Your task to perform on an android device: Go to Yahoo.com Image 0: 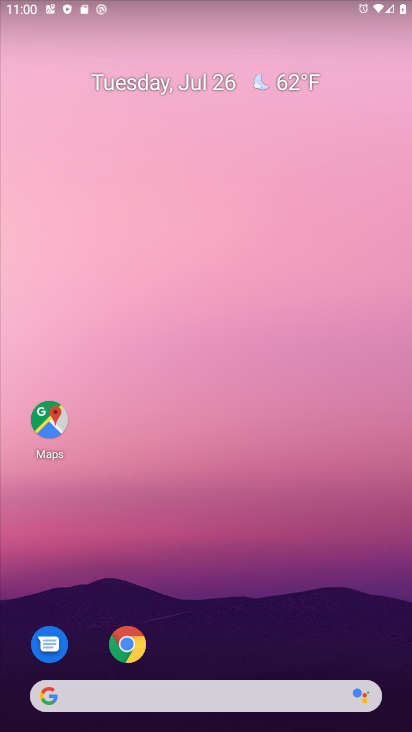
Step 0: click (127, 656)
Your task to perform on an android device: Go to Yahoo.com Image 1: 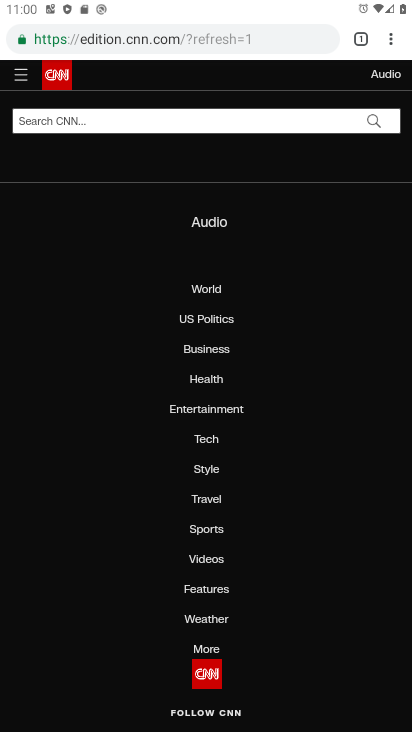
Step 1: click (187, 28)
Your task to perform on an android device: Go to Yahoo.com Image 2: 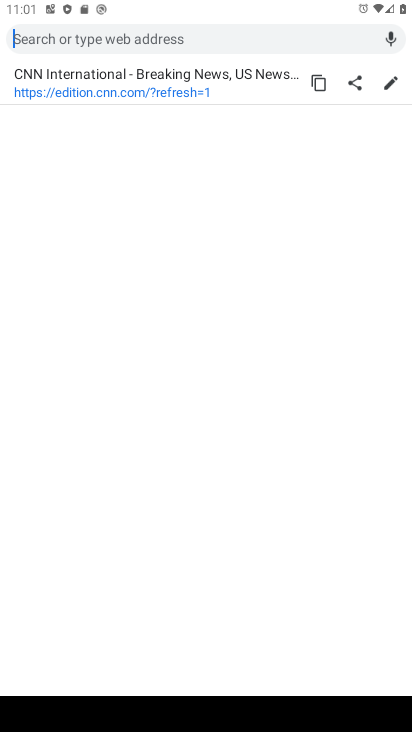
Step 2: type "yahoo.com"
Your task to perform on an android device: Go to Yahoo.com Image 3: 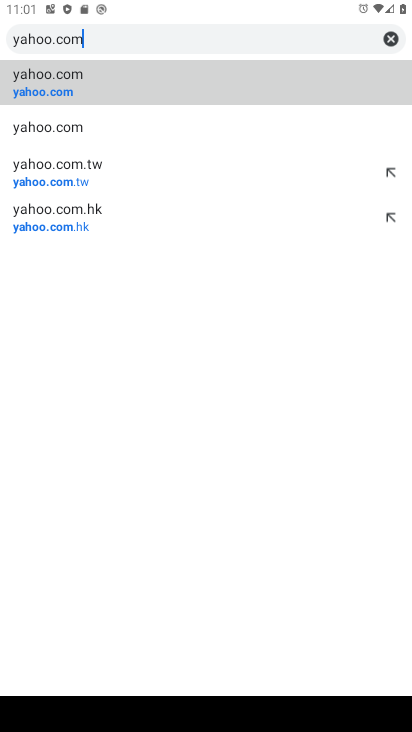
Step 3: click (136, 83)
Your task to perform on an android device: Go to Yahoo.com Image 4: 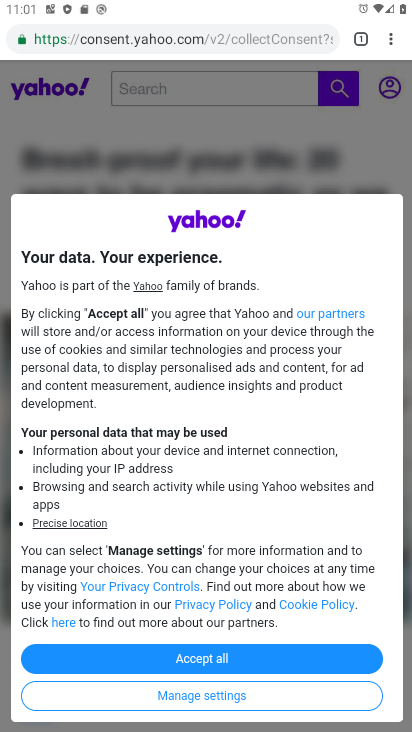
Step 4: task complete